Your task to perform on an android device: Open Google Maps and go to "Timeline" Image 0: 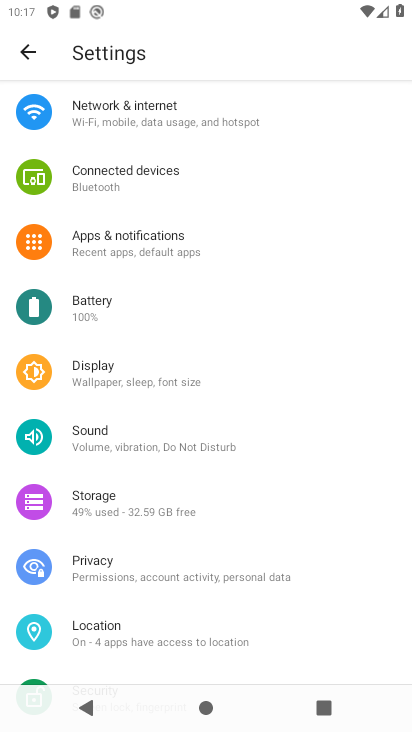
Step 0: press home button
Your task to perform on an android device: Open Google Maps and go to "Timeline" Image 1: 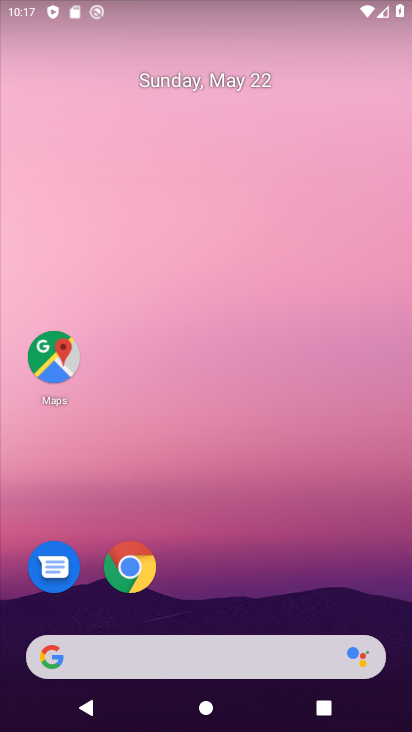
Step 1: click (55, 356)
Your task to perform on an android device: Open Google Maps and go to "Timeline" Image 2: 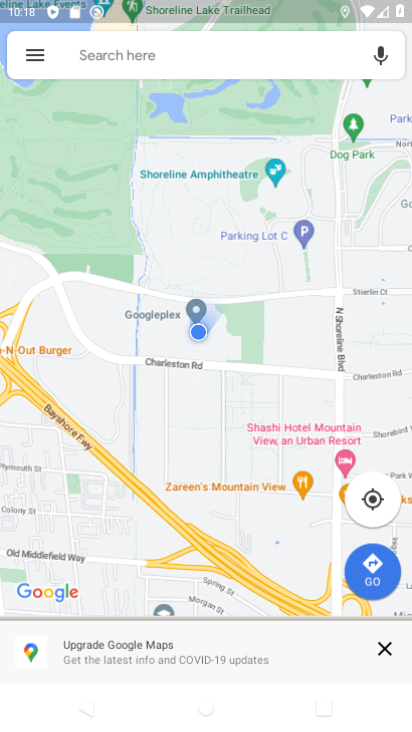
Step 2: click (34, 55)
Your task to perform on an android device: Open Google Maps and go to "Timeline" Image 3: 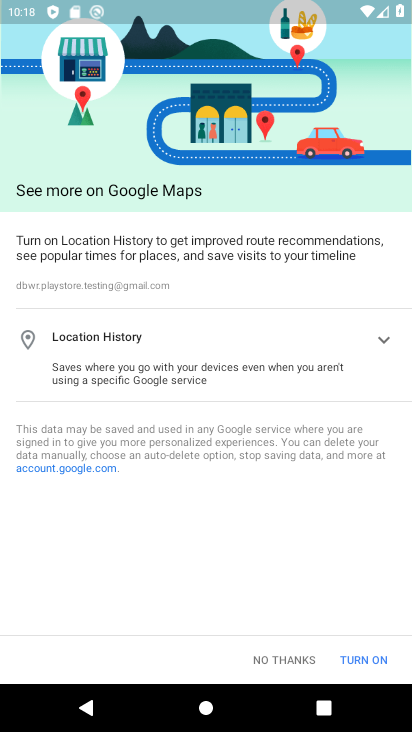
Step 3: click (279, 656)
Your task to perform on an android device: Open Google Maps and go to "Timeline" Image 4: 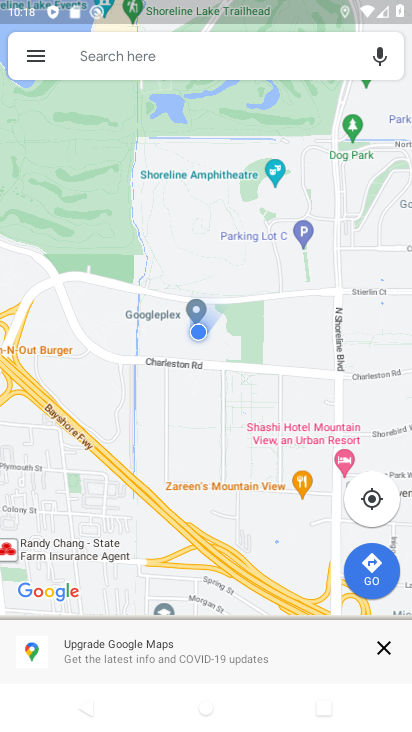
Step 4: click (381, 645)
Your task to perform on an android device: Open Google Maps and go to "Timeline" Image 5: 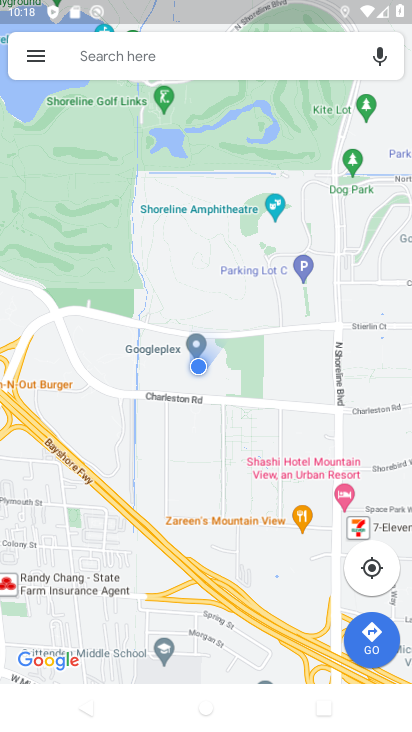
Step 5: click (33, 54)
Your task to perform on an android device: Open Google Maps and go to "Timeline" Image 6: 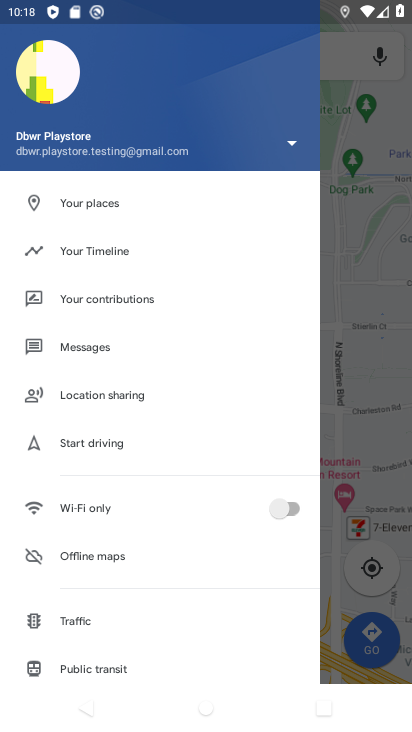
Step 6: click (103, 252)
Your task to perform on an android device: Open Google Maps and go to "Timeline" Image 7: 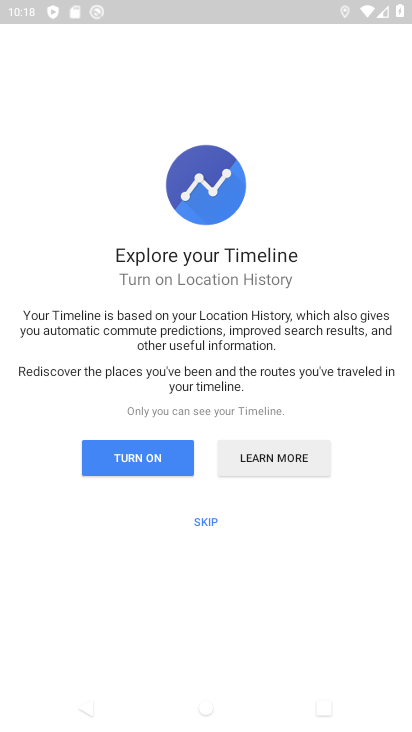
Step 7: click (207, 518)
Your task to perform on an android device: Open Google Maps and go to "Timeline" Image 8: 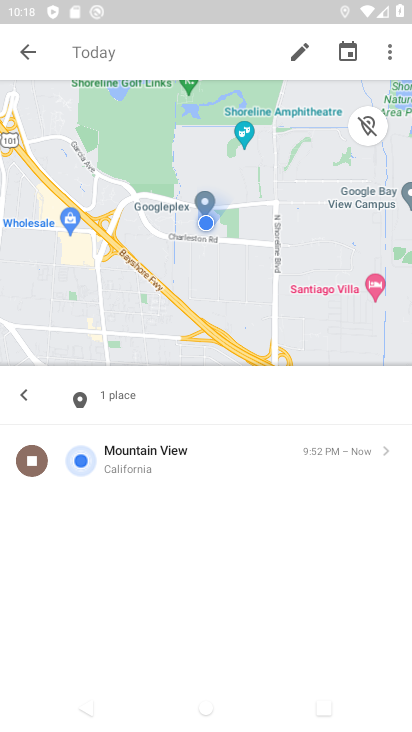
Step 8: task complete